Your task to perform on an android device: visit the assistant section in the google photos Image 0: 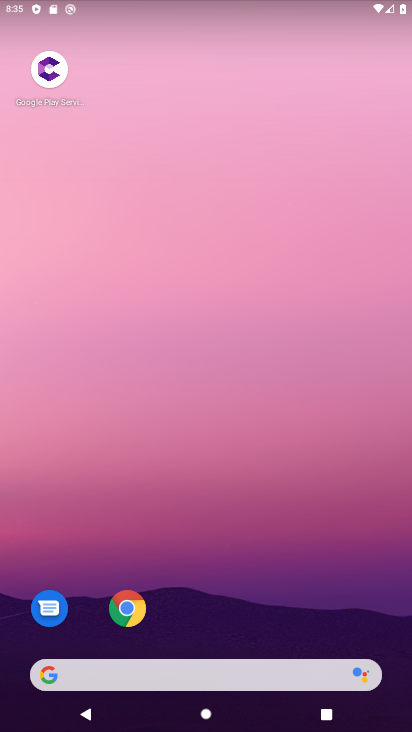
Step 0: drag from (271, 637) to (278, 68)
Your task to perform on an android device: visit the assistant section in the google photos Image 1: 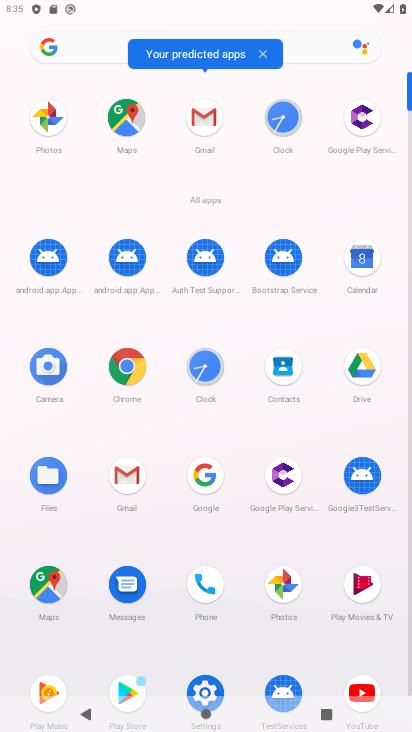
Step 1: click (294, 586)
Your task to perform on an android device: visit the assistant section in the google photos Image 2: 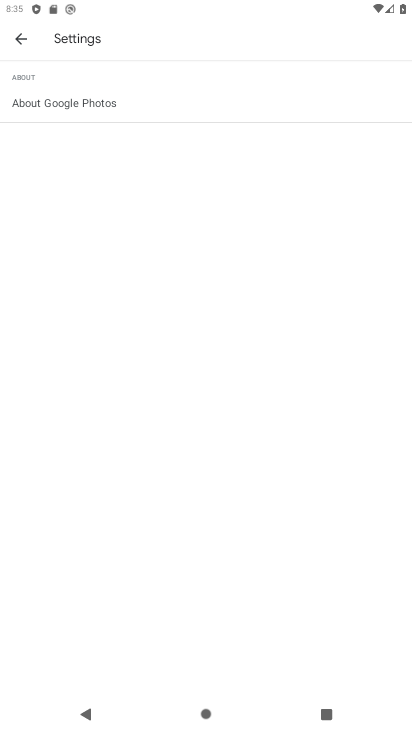
Step 2: click (16, 43)
Your task to perform on an android device: visit the assistant section in the google photos Image 3: 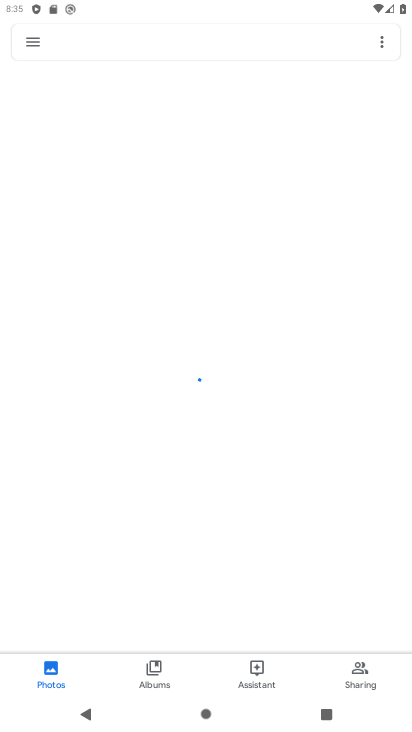
Step 3: click (261, 672)
Your task to perform on an android device: visit the assistant section in the google photos Image 4: 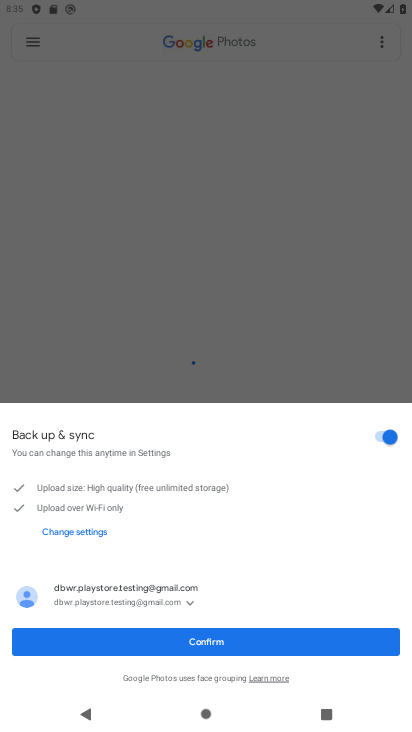
Step 4: click (247, 642)
Your task to perform on an android device: visit the assistant section in the google photos Image 5: 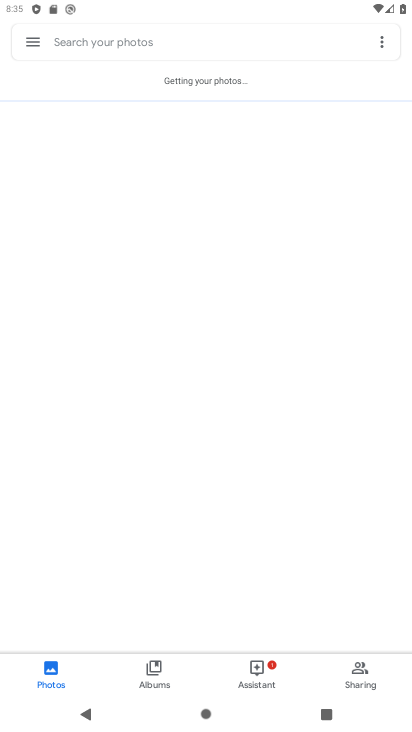
Step 5: click (265, 670)
Your task to perform on an android device: visit the assistant section in the google photos Image 6: 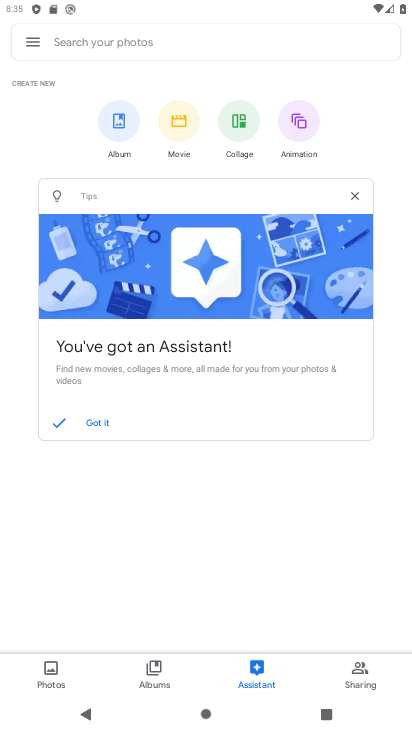
Step 6: task complete